Your task to perform on an android device: snooze an email in the gmail app Image 0: 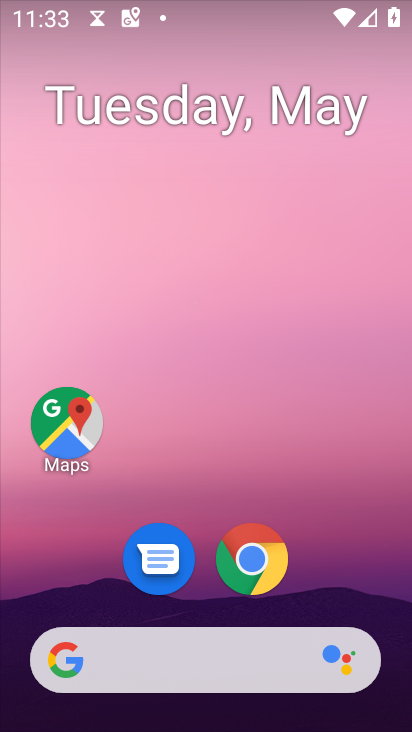
Step 0: drag from (343, 589) to (307, 135)
Your task to perform on an android device: snooze an email in the gmail app Image 1: 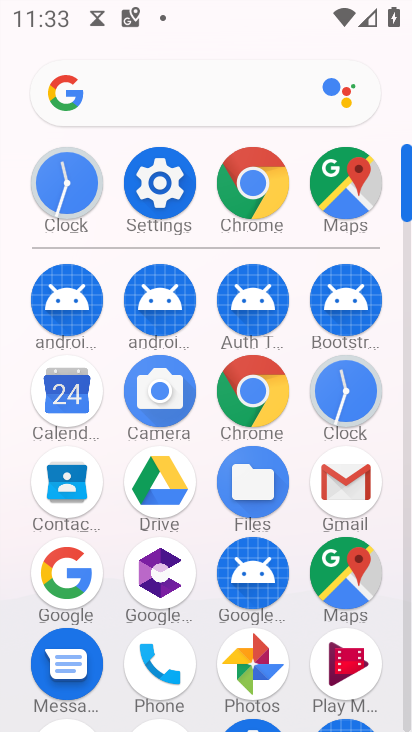
Step 1: click (320, 454)
Your task to perform on an android device: snooze an email in the gmail app Image 2: 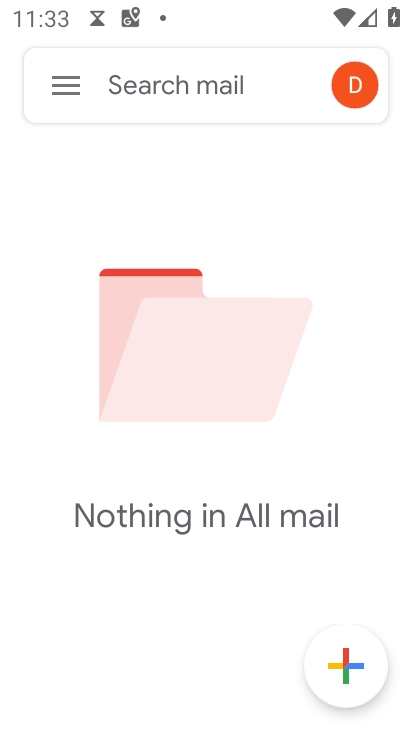
Step 2: task complete